Your task to perform on an android device: toggle airplane mode Image 0: 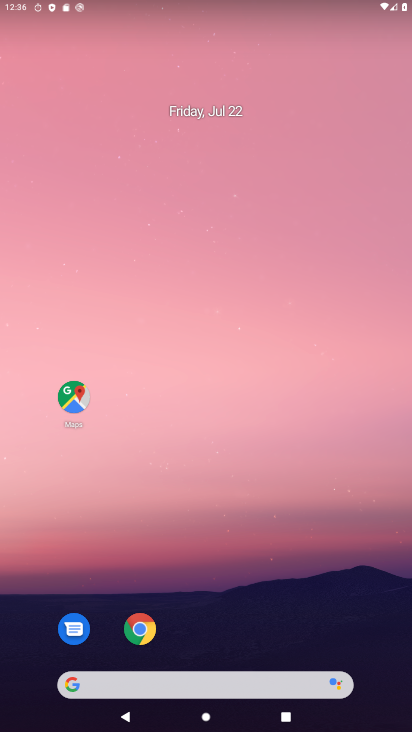
Step 0: drag from (208, 640) to (281, 64)
Your task to perform on an android device: toggle airplane mode Image 1: 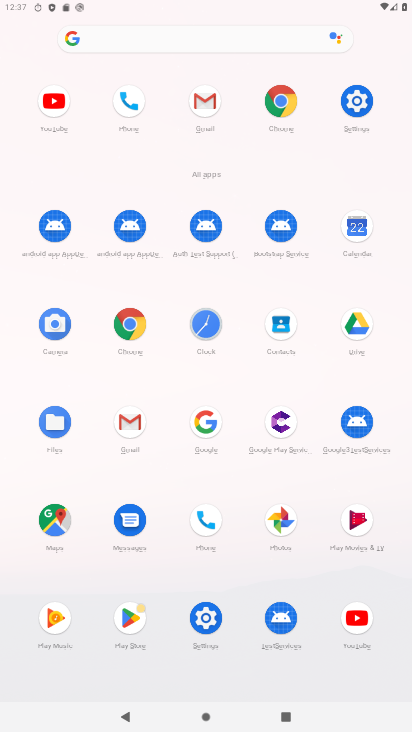
Step 1: click (356, 100)
Your task to perform on an android device: toggle airplane mode Image 2: 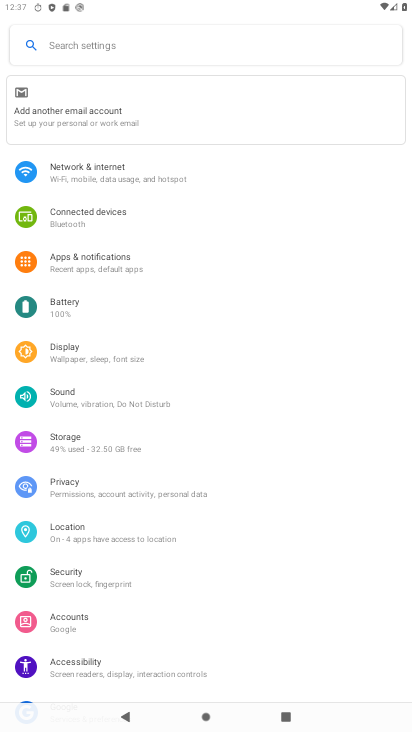
Step 2: click (84, 170)
Your task to perform on an android device: toggle airplane mode Image 3: 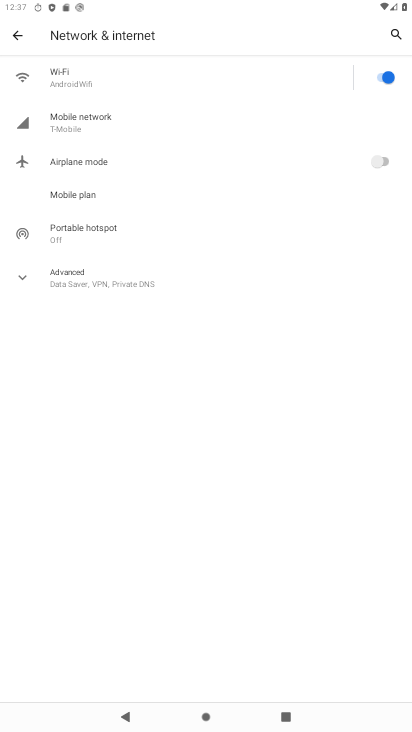
Step 3: click (391, 158)
Your task to perform on an android device: toggle airplane mode Image 4: 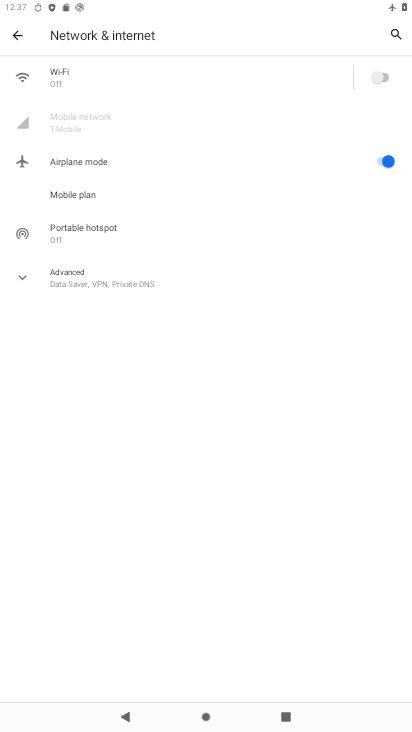
Step 4: task complete